Your task to perform on an android device: toggle sleep mode Image 0: 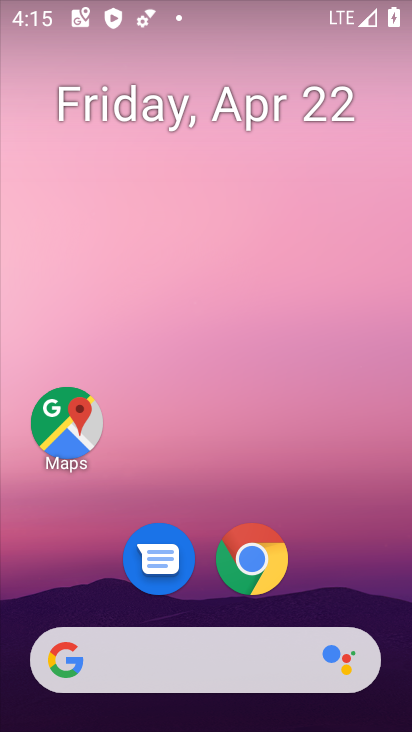
Step 0: drag from (338, 579) to (251, 51)
Your task to perform on an android device: toggle sleep mode Image 1: 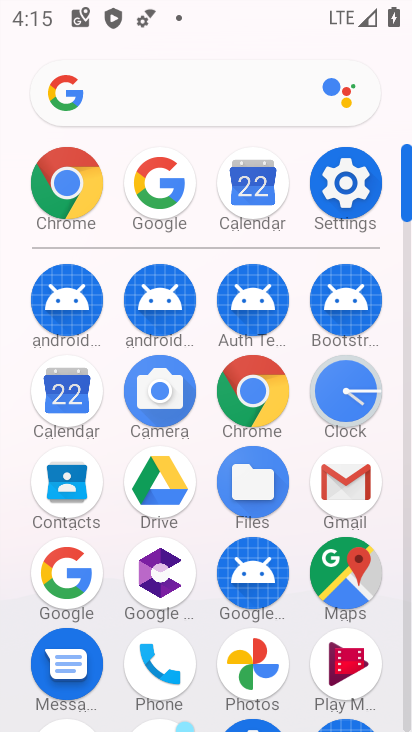
Step 1: click (352, 199)
Your task to perform on an android device: toggle sleep mode Image 2: 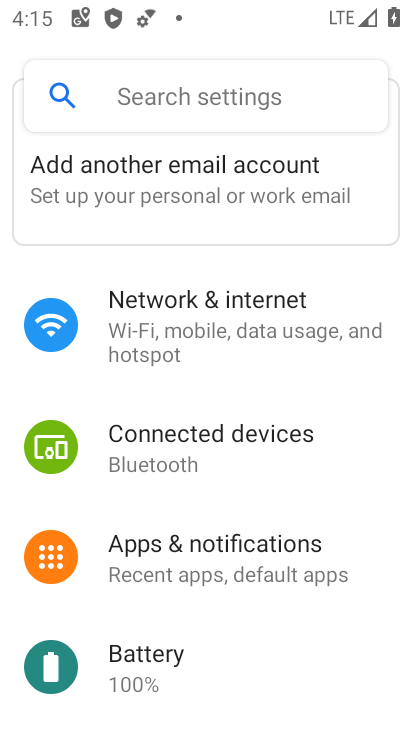
Step 2: drag from (241, 637) to (217, 145)
Your task to perform on an android device: toggle sleep mode Image 3: 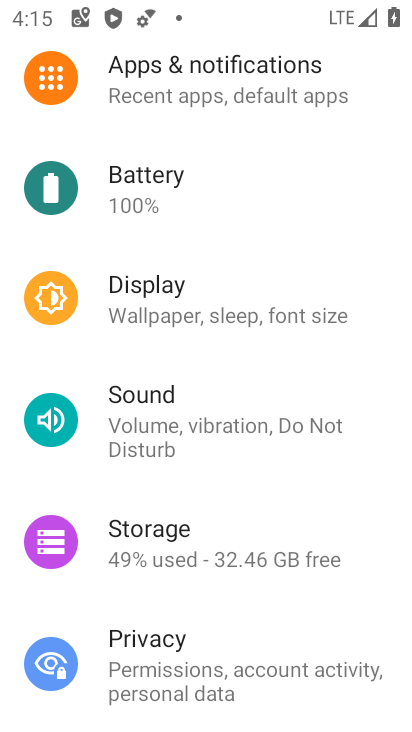
Step 3: click (192, 286)
Your task to perform on an android device: toggle sleep mode Image 4: 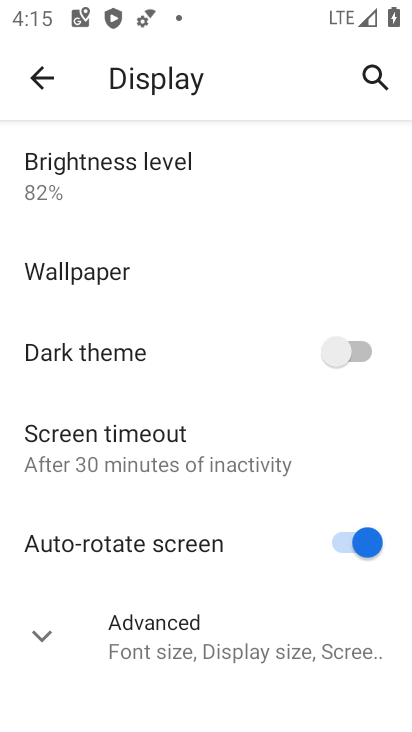
Step 4: task complete